Your task to perform on an android device: add a contact in the contacts app Image 0: 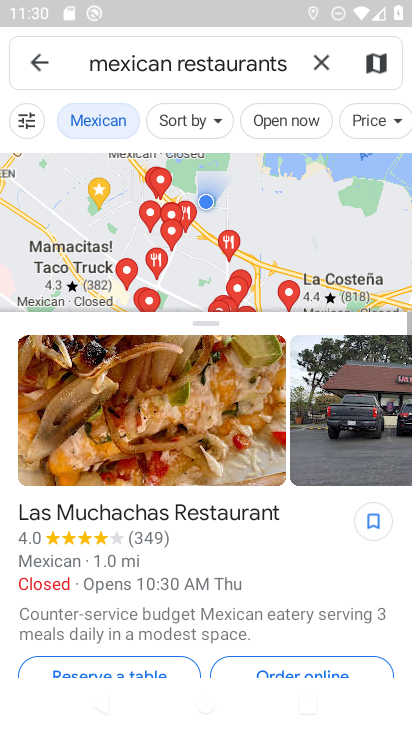
Step 0: press home button
Your task to perform on an android device: add a contact in the contacts app Image 1: 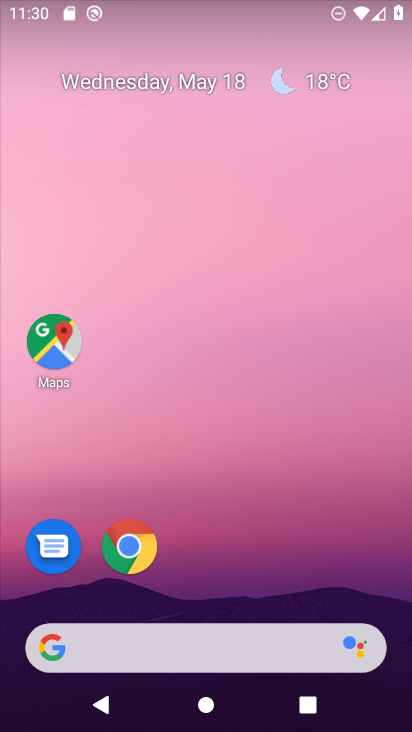
Step 1: drag from (238, 725) to (229, 139)
Your task to perform on an android device: add a contact in the contacts app Image 2: 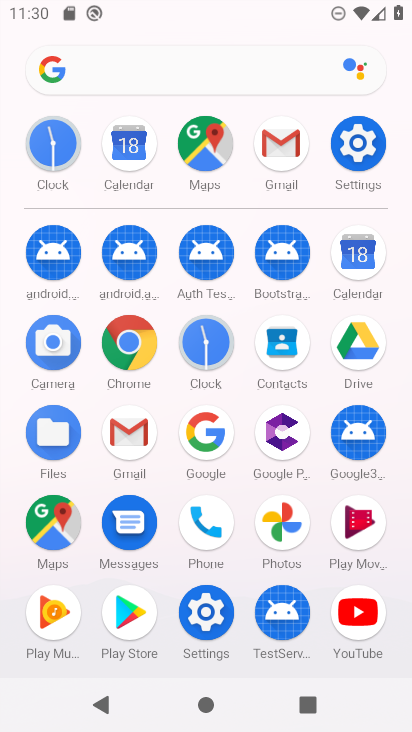
Step 2: click (288, 350)
Your task to perform on an android device: add a contact in the contacts app Image 3: 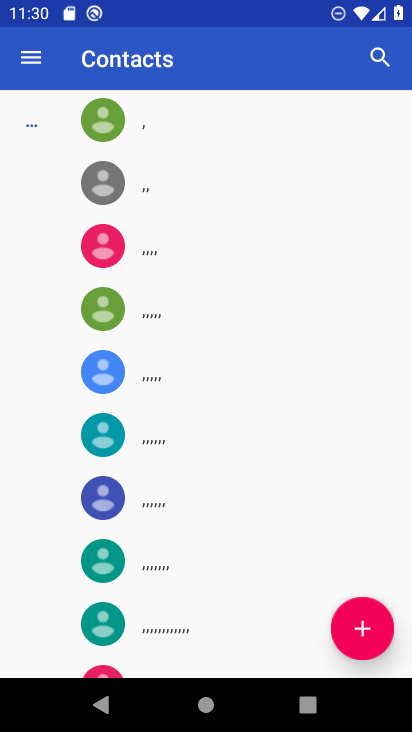
Step 3: click (356, 627)
Your task to perform on an android device: add a contact in the contacts app Image 4: 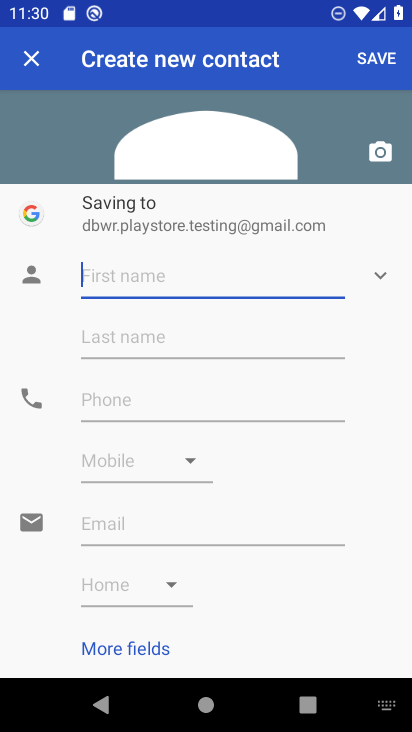
Step 4: type "nnnnwww"
Your task to perform on an android device: add a contact in the contacts app Image 5: 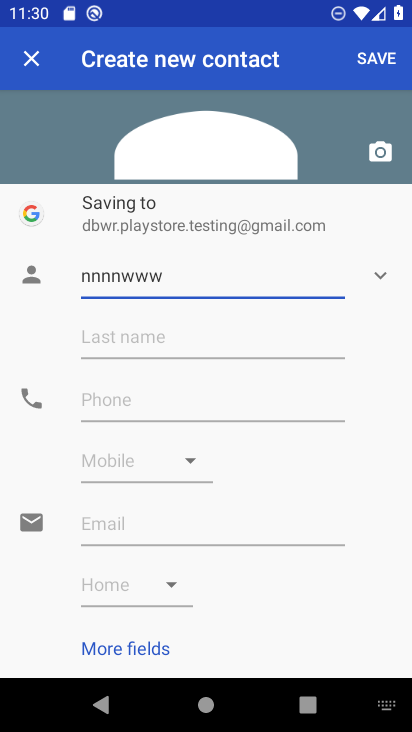
Step 5: click (192, 401)
Your task to perform on an android device: add a contact in the contacts app Image 6: 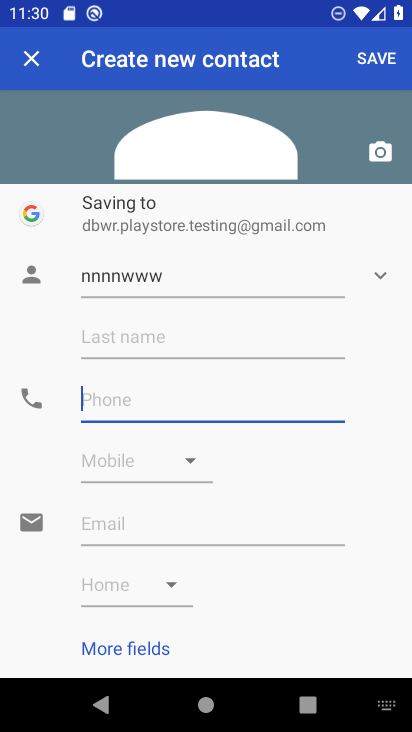
Step 6: type "89876543212334"
Your task to perform on an android device: add a contact in the contacts app Image 7: 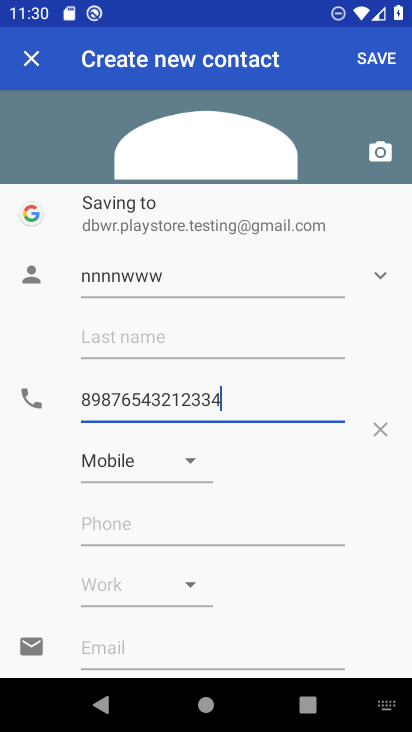
Step 7: click (370, 56)
Your task to perform on an android device: add a contact in the contacts app Image 8: 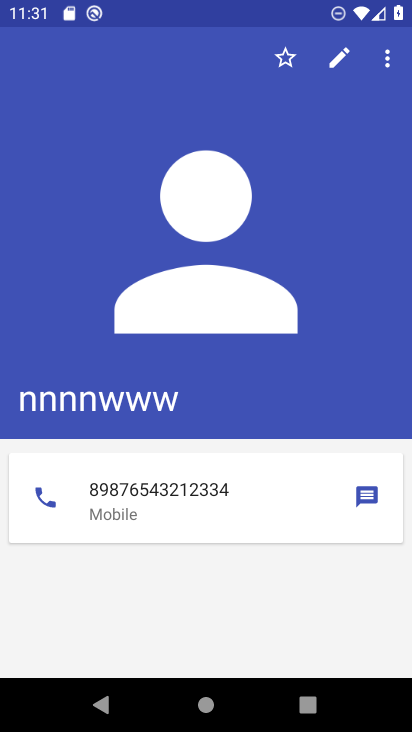
Step 8: task complete